Your task to perform on an android device: set an alarm Image 0: 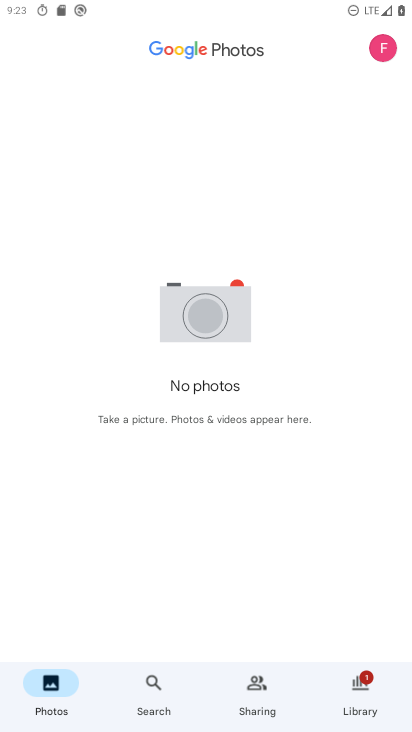
Step 0: press home button
Your task to perform on an android device: set an alarm Image 1: 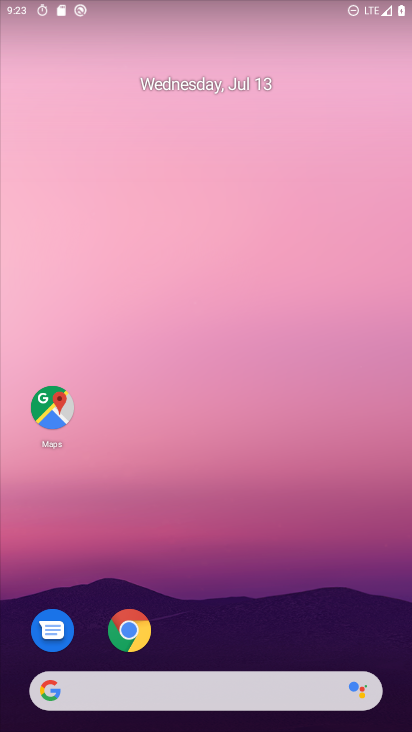
Step 1: drag from (381, 630) to (124, 4)
Your task to perform on an android device: set an alarm Image 2: 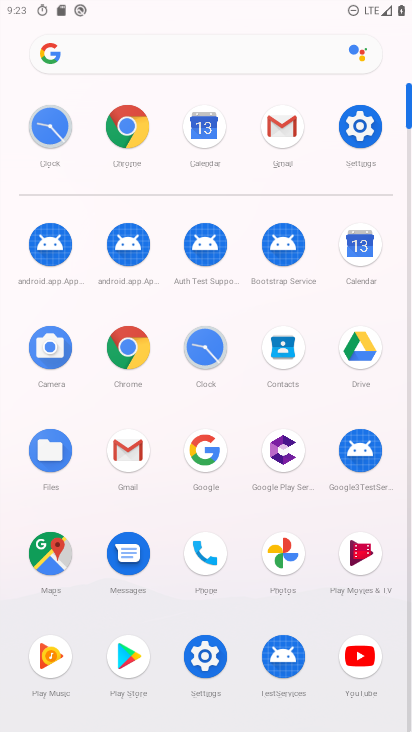
Step 2: click (48, 104)
Your task to perform on an android device: set an alarm Image 3: 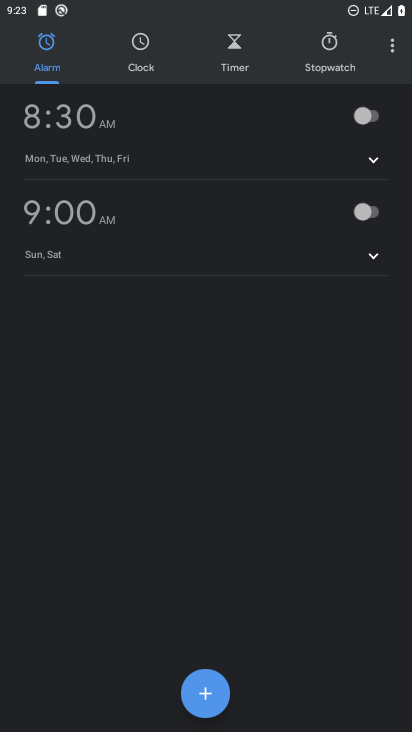
Step 3: click (370, 115)
Your task to perform on an android device: set an alarm Image 4: 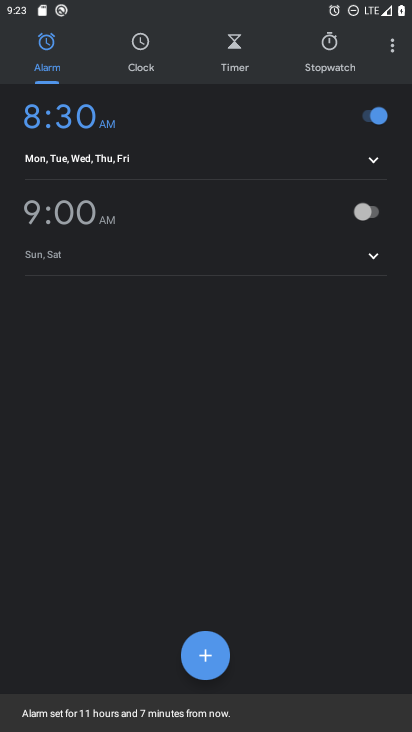
Step 4: task complete